Your task to perform on an android device: search for starred emails in the gmail app Image 0: 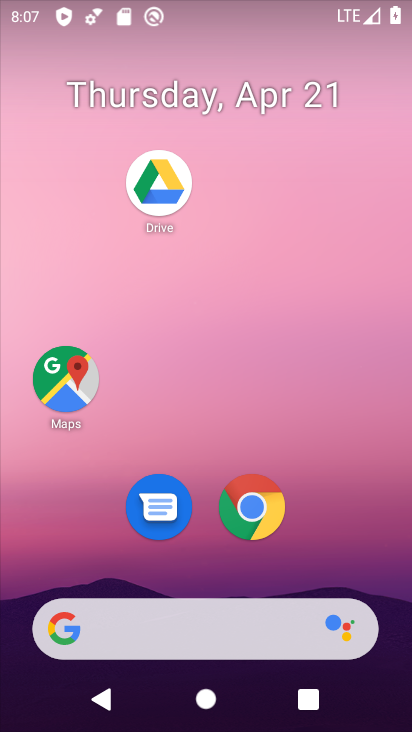
Step 0: drag from (388, 542) to (351, 74)
Your task to perform on an android device: search for starred emails in the gmail app Image 1: 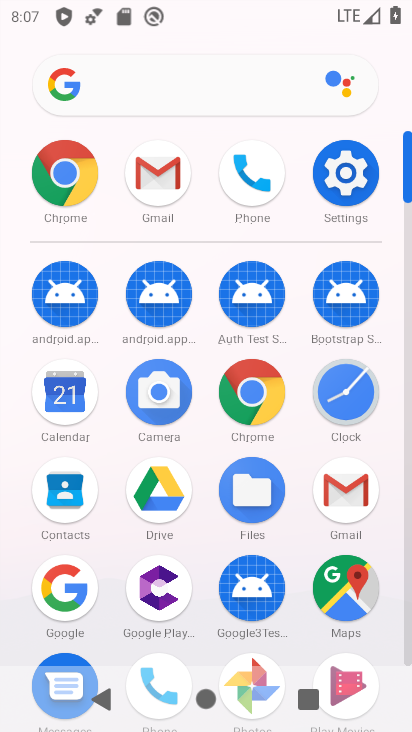
Step 1: click (364, 496)
Your task to perform on an android device: search for starred emails in the gmail app Image 2: 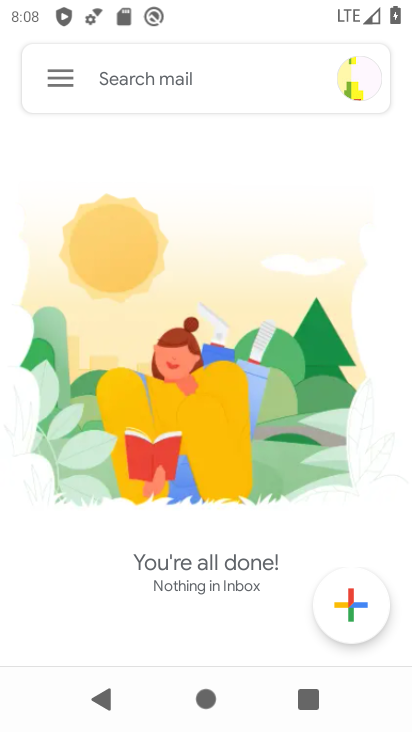
Step 2: click (55, 75)
Your task to perform on an android device: search for starred emails in the gmail app Image 3: 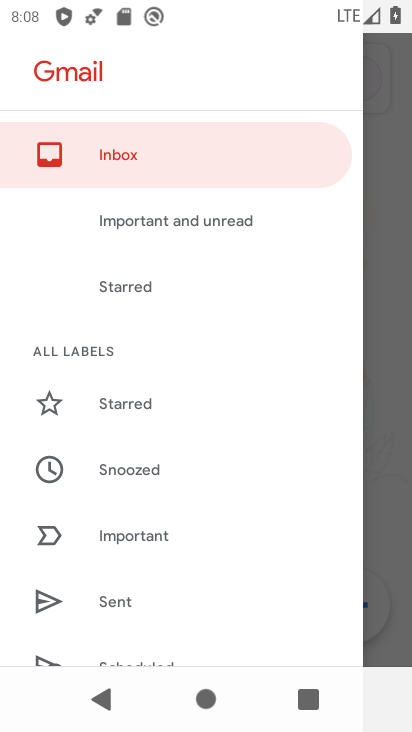
Step 3: drag from (277, 547) to (299, 384)
Your task to perform on an android device: search for starred emails in the gmail app Image 4: 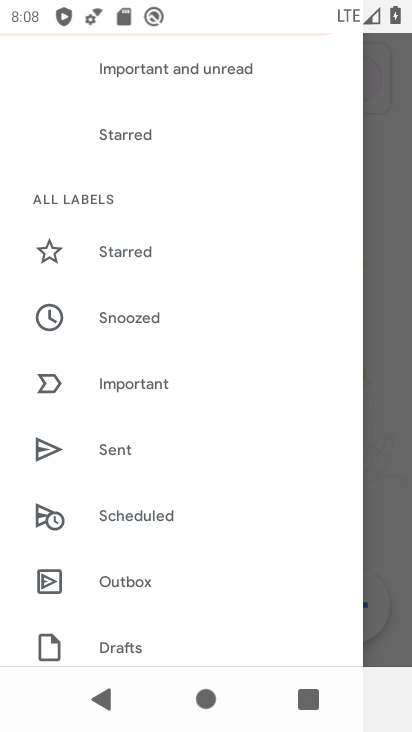
Step 4: drag from (282, 579) to (282, 426)
Your task to perform on an android device: search for starred emails in the gmail app Image 5: 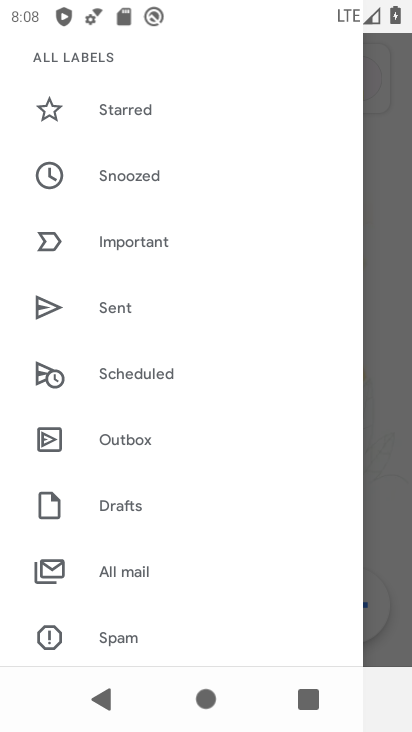
Step 5: drag from (271, 559) to (277, 392)
Your task to perform on an android device: search for starred emails in the gmail app Image 6: 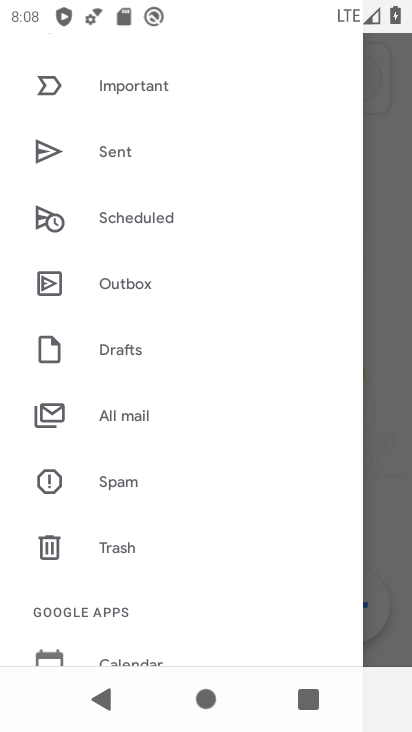
Step 6: drag from (278, 578) to (282, 401)
Your task to perform on an android device: search for starred emails in the gmail app Image 7: 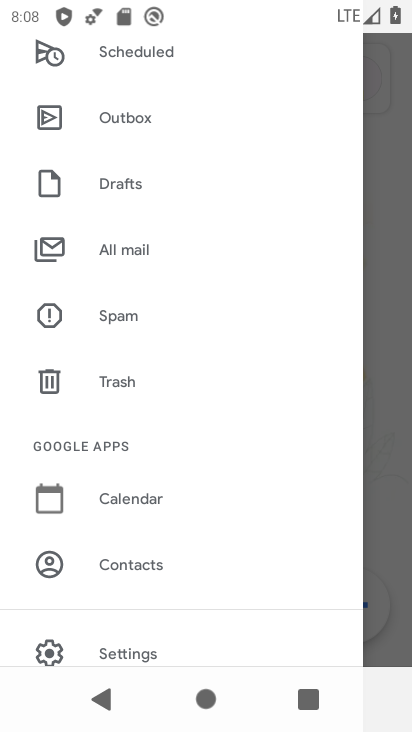
Step 7: drag from (282, 606) to (278, 412)
Your task to perform on an android device: search for starred emails in the gmail app Image 8: 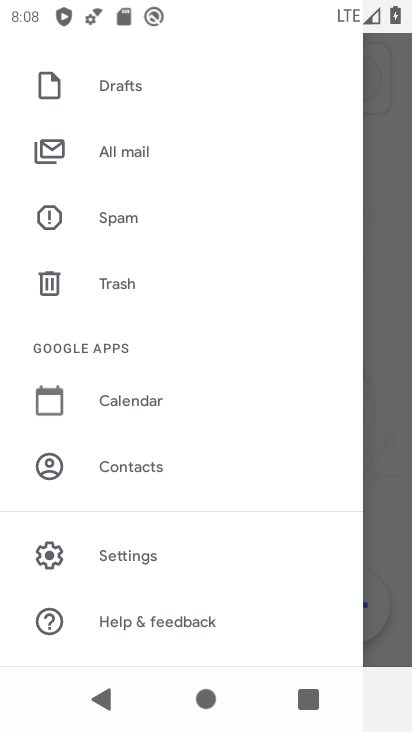
Step 8: drag from (283, 344) to (290, 479)
Your task to perform on an android device: search for starred emails in the gmail app Image 9: 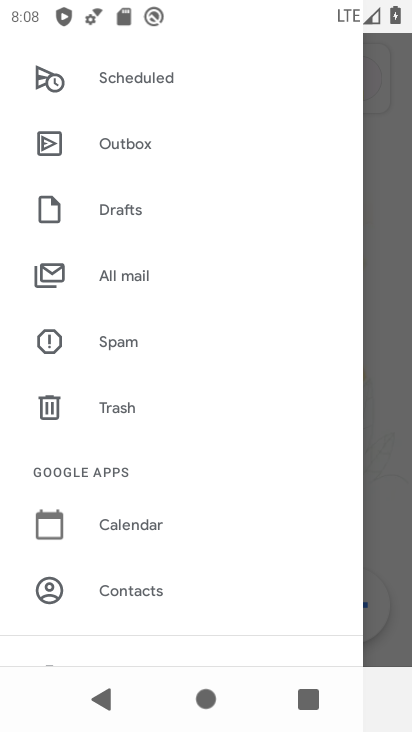
Step 9: drag from (284, 312) to (286, 494)
Your task to perform on an android device: search for starred emails in the gmail app Image 10: 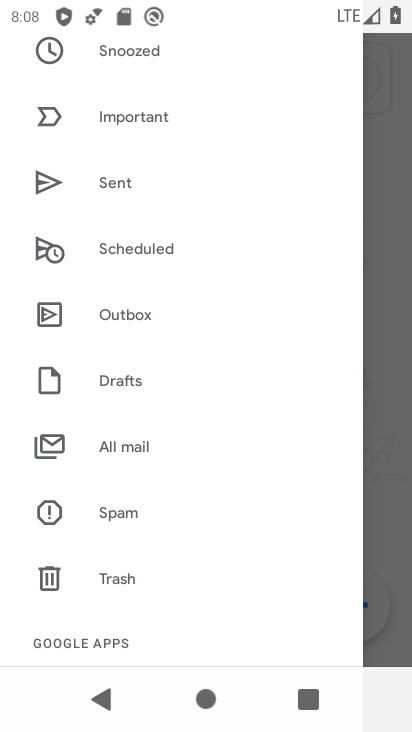
Step 10: drag from (298, 366) to (300, 505)
Your task to perform on an android device: search for starred emails in the gmail app Image 11: 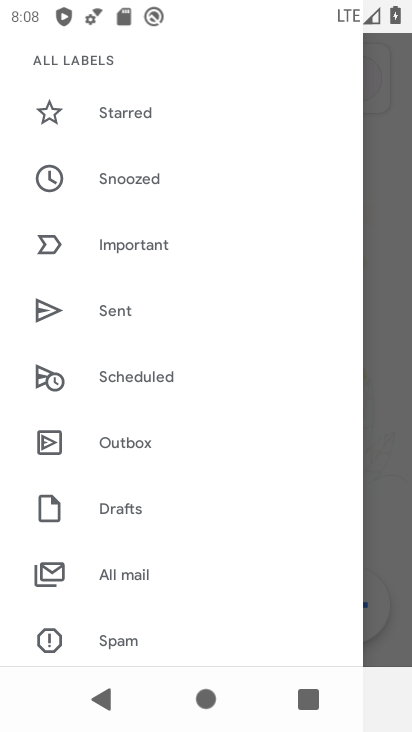
Step 11: drag from (294, 367) to (288, 508)
Your task to perform on an android device: search for starred emails in the gmail app Image 12: 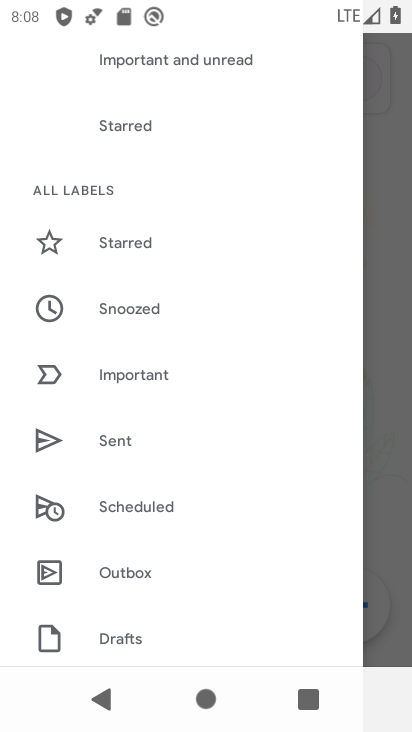
Step 12: drag from (289, 372) to (290, 484)
Your task to perform on an android device: search for starred emails in the gmail app Image 13: 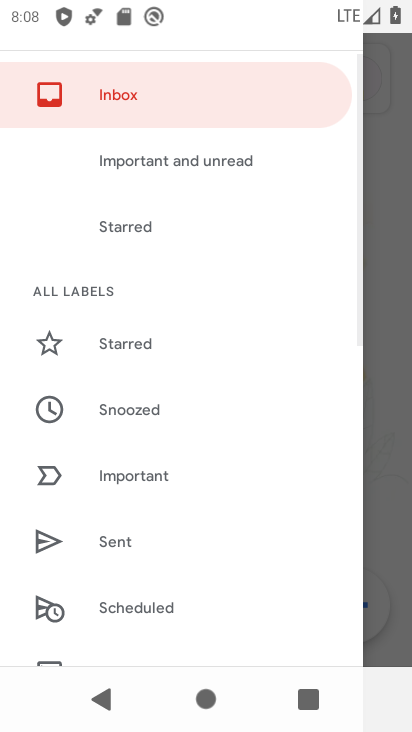
Step 13: drag from (294, 350) to (298, 534)
Your task to perform on an android device: search for starred emails in the gmail app Image 14: 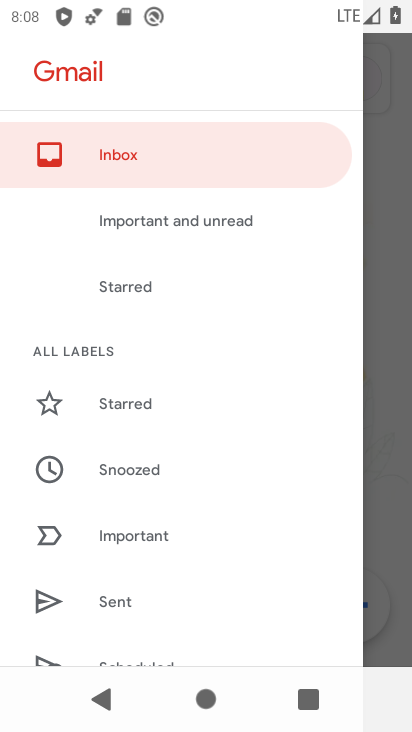
Step 14: click (168, 401)
Your task to perform on an android device: search for starred emails in the gmail app Image 15: 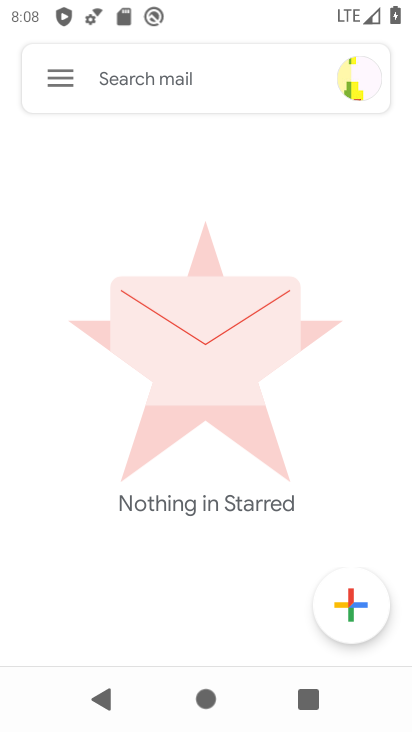
Step 15: task complete